Your task to perform on an android device: change the upload size in google photos Image 0: 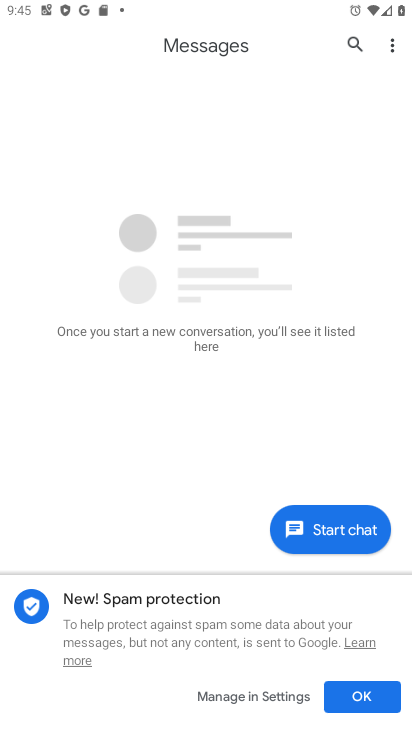
Step 0: press home button
Your task to perform on an android device: change the upload size in google photos Image 1: 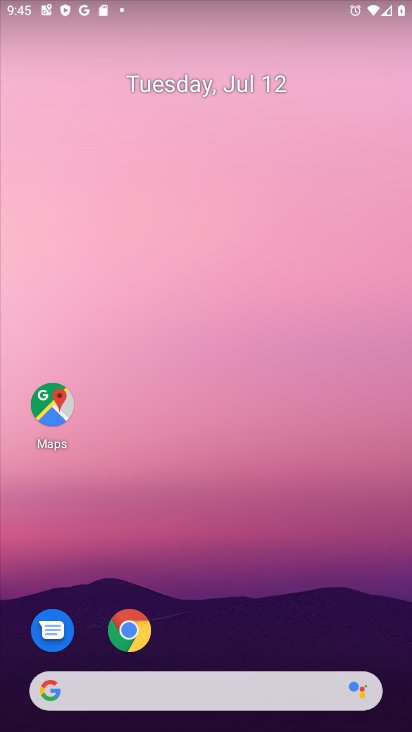
Step 1: drag from (213, 626) to (263, 94)
Your task to perform on an android device: change the upload size in google photos Image 2: 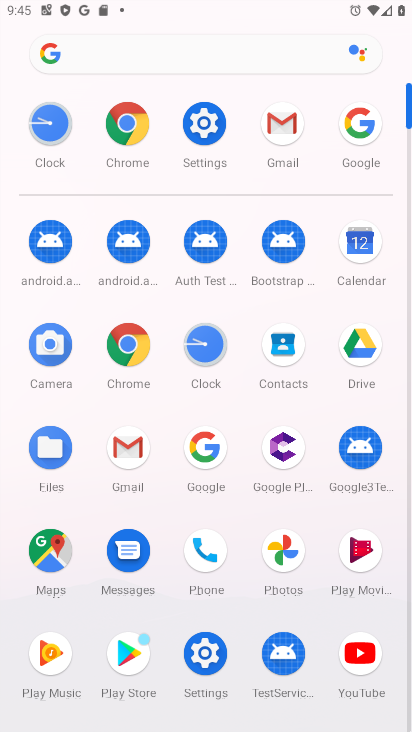
Step 2: click (286, 547)
Your task to perform on an android device: change the upload size in google photos Image 3: 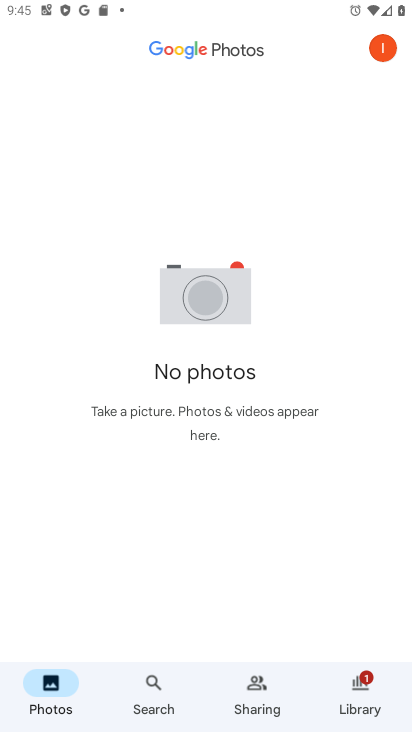
Step 3: click (387, 53)
Your task to perform on an android device: change the upload size in google photos Image 4: 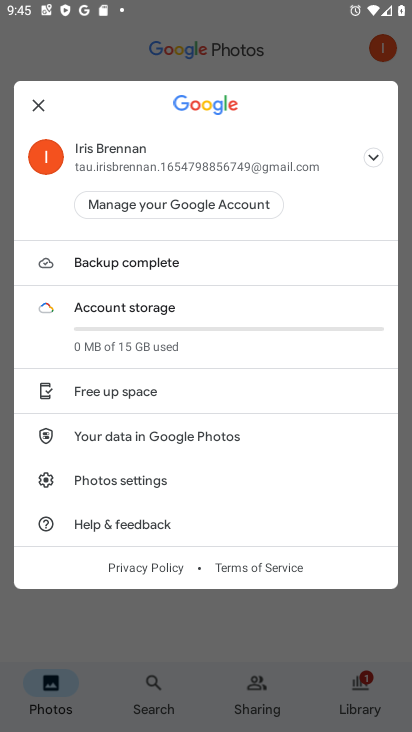
Step 4: click (116, 477)
Your task to perform on an android device: change the upload size in google photos Image 5: 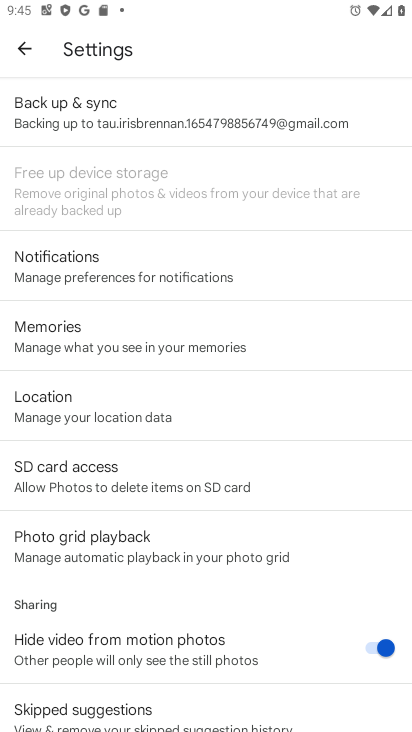
Step 5: drag from (119, 651) to (107, 359)
Your task to perform on an android device: change the upload size in google photos Image 6: 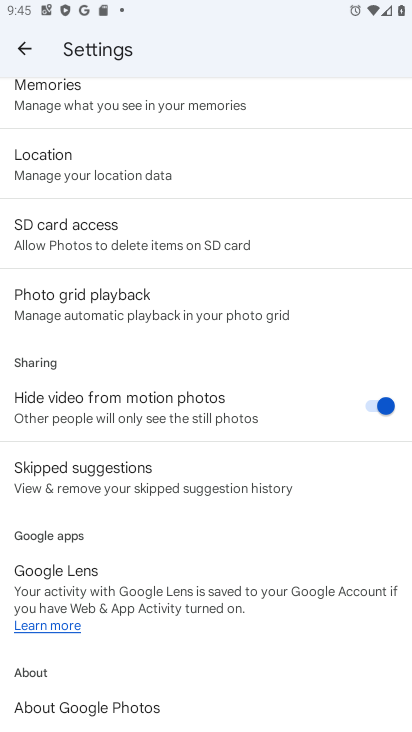
Step 6: drag from (132, 641) to (146, 711)
Your task to perform on an android device: change the upload size in google photos Image 7: 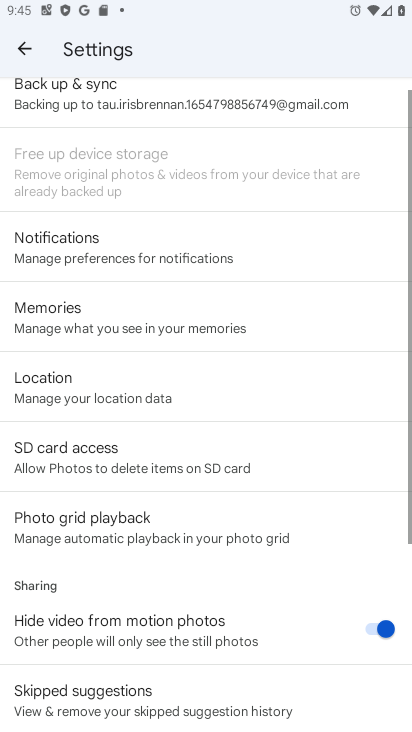
Step 7: click (93, 116)
Your task to perform on an android device: change the upload size in google photos Image 8: 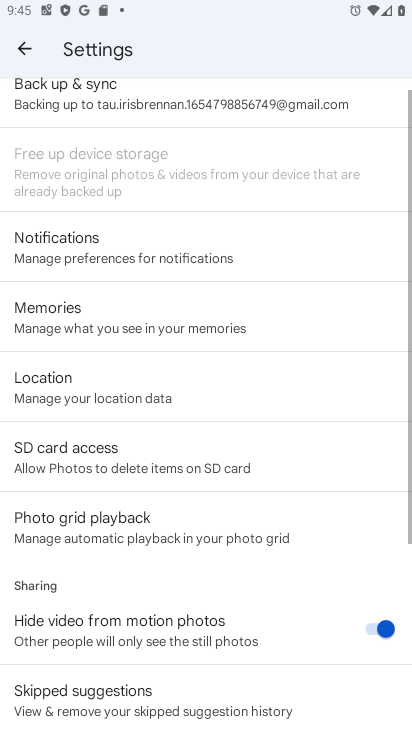
Step 8: click (92, 116)
Your task to perform on an android device: change the upload size in google photos Image 9: 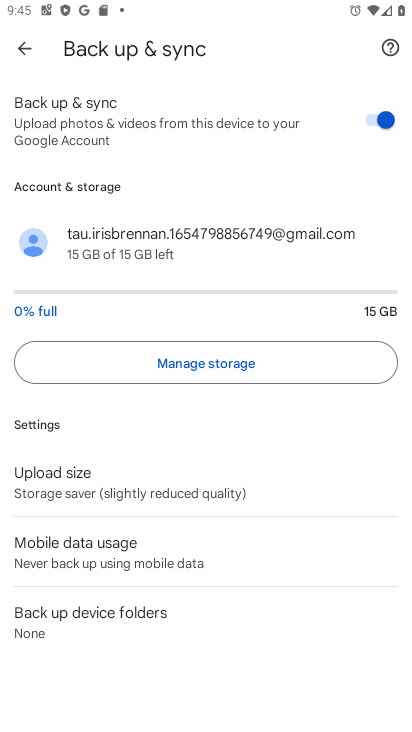
Step 9: click (89, 484)
Your task to perform on an android device: change the upload size in google photos Image 10: 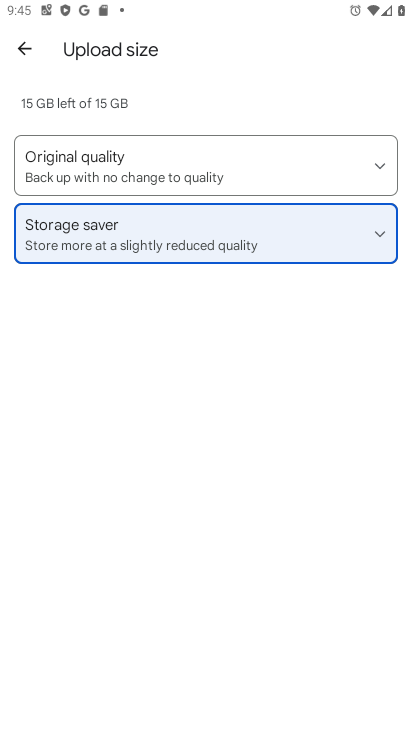
Step 10: click (78, 157)
Your task to perform on an android device: change the upload size in google photos Image 11: 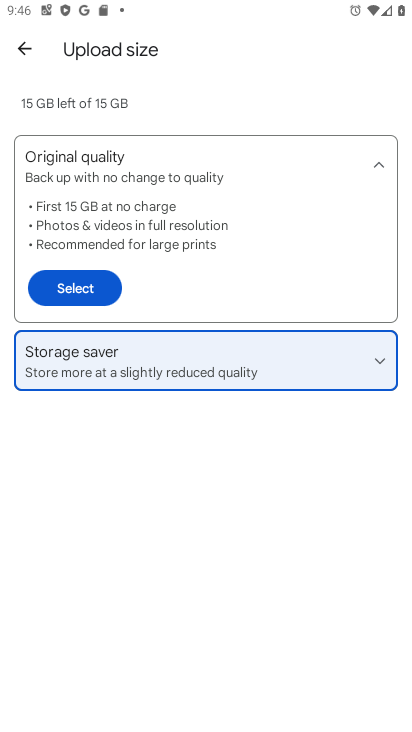
Step 11: click (67, 281)
Your task to perform on an android device: change the upload size in google photos Image 12: 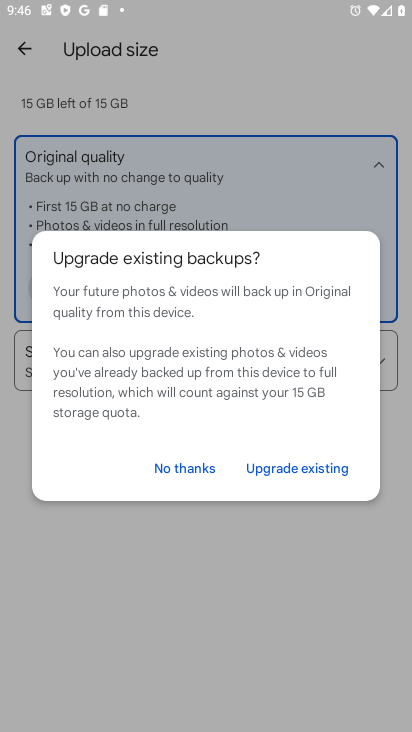
Step 12: click (175, 468)
Your task to perform on an android device: change the upload size in google photos Image 13: 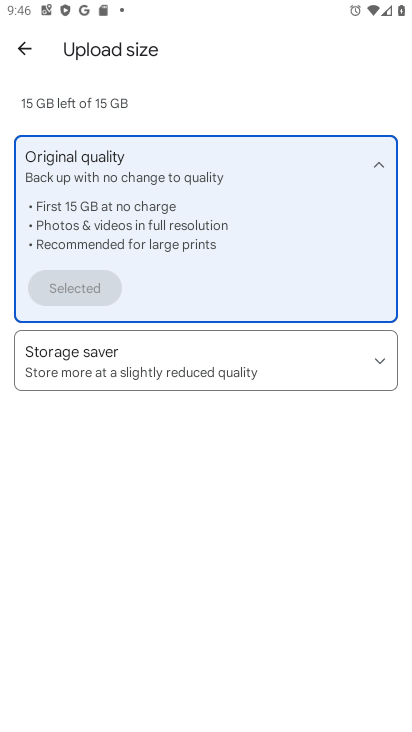
Step 13: task complete